Your task to perform on an android device: find photos in the google photos app Image 0: 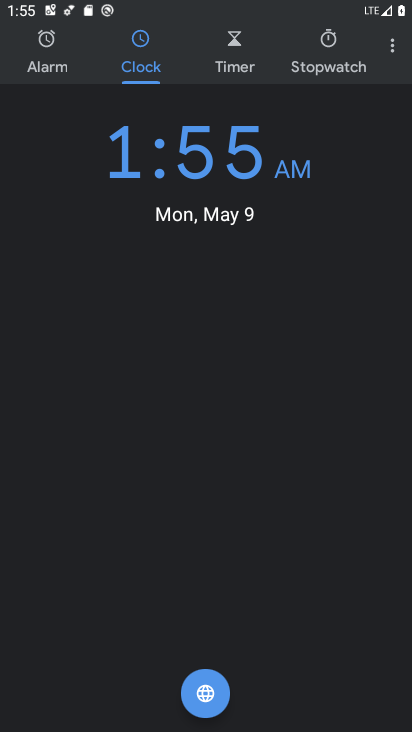
Step 0: press home button
Your task to perform on an android device: find photos in the google photos app Image 1: 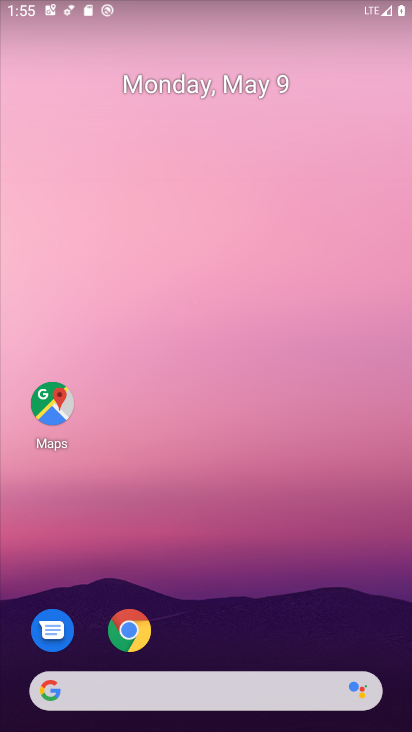
Step 1: drag from (222, 610) to (270, 65)
Your task to perform on an android device: find photos in the google photos app Image 2: 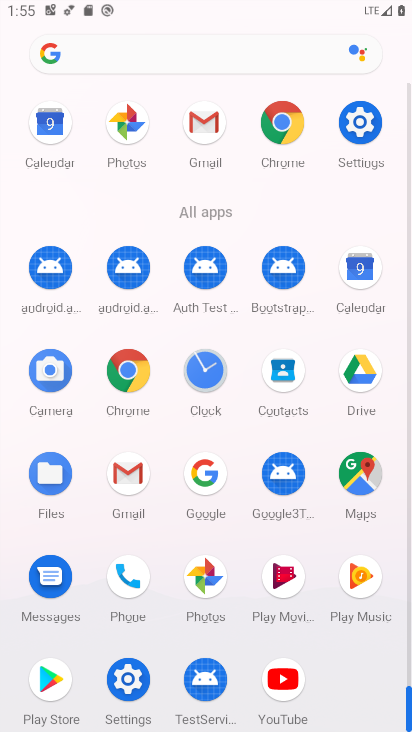
Step 2: click (208, 571)
Your task to perform on an android device: find photos in the google photos app Image 3: 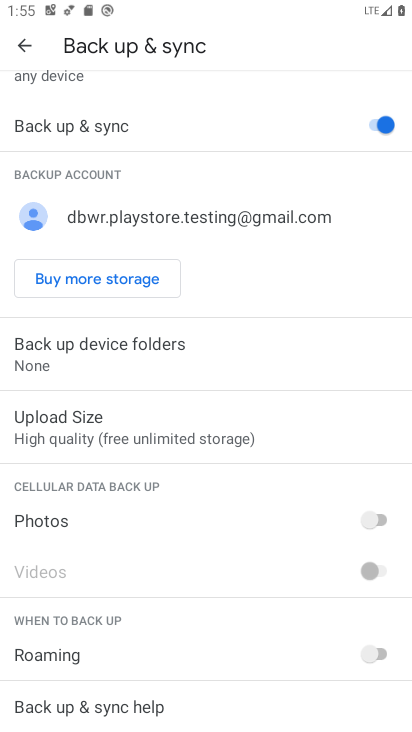
Step 3: click (37, 37)
Your task to perform on an android device: find photos in the google photos app Image 4: 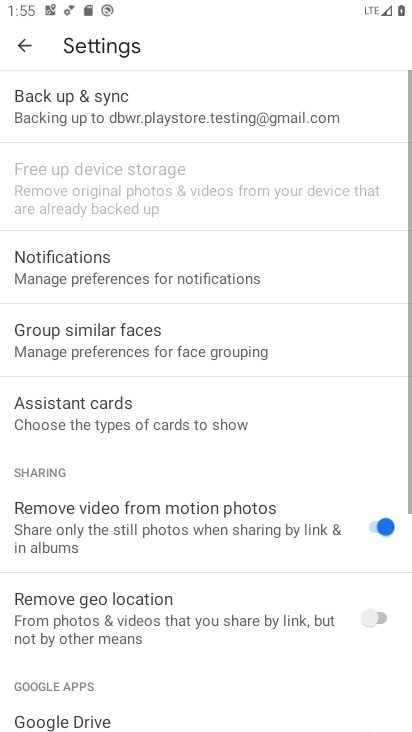
Step 4: click (36, 38)
Your task to perform on an android device: find photos in the google photos app Image 5: 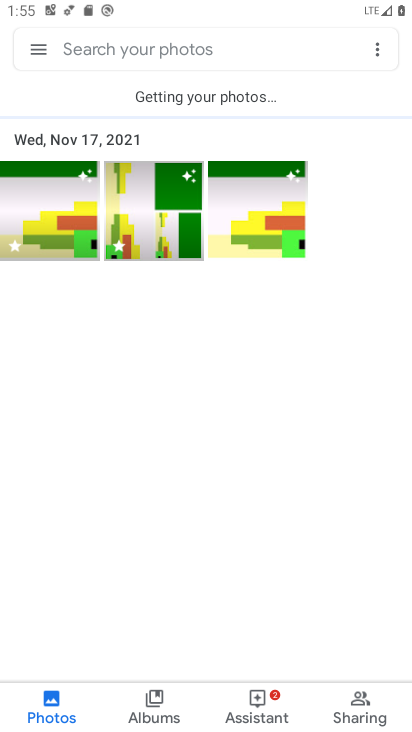
Step 5: click (58, 205)
Your task to perform on an android device: find photos in the google photos app Image 6: 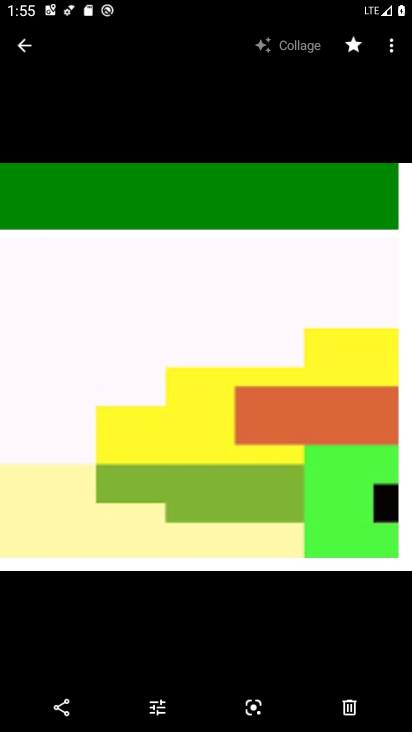
Step 6: task complete